Your task to perform on an android device: turn off wifi Image 0: 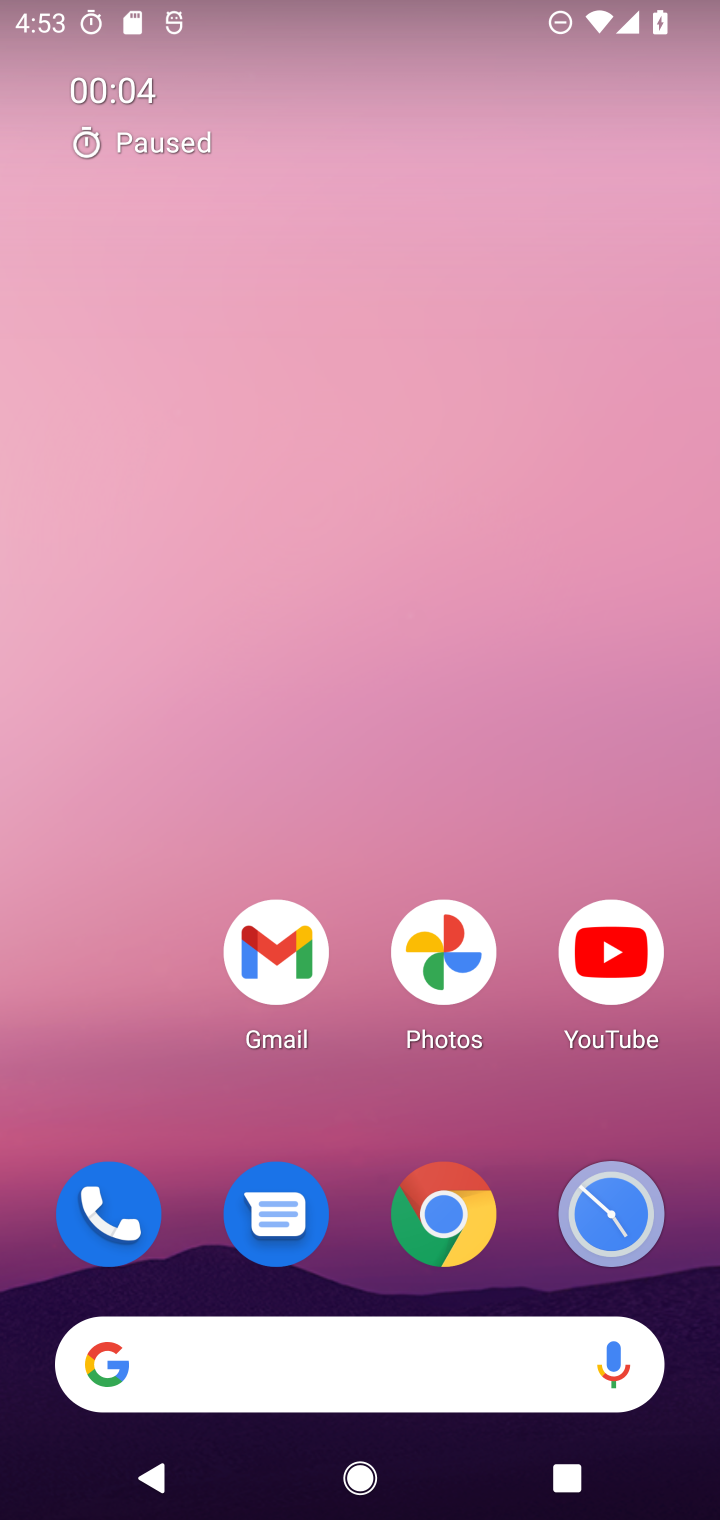
Step 0: drag from (358, 1263) to (305, 114)
Your task to perform on an android device: turn off wifi Image 1: 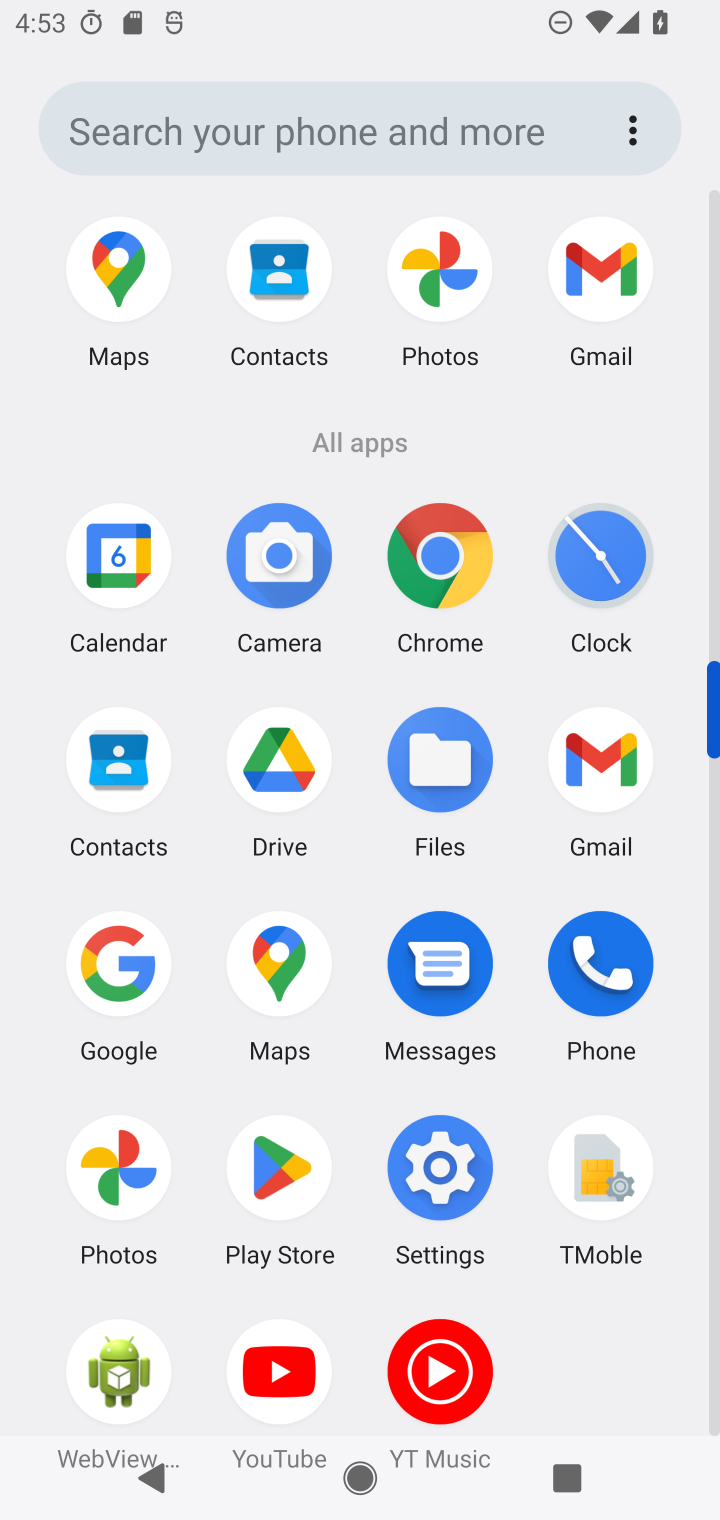
Step 1: click (417, 1193)
Your task to perform on an android device: turn off wifi Image 2: 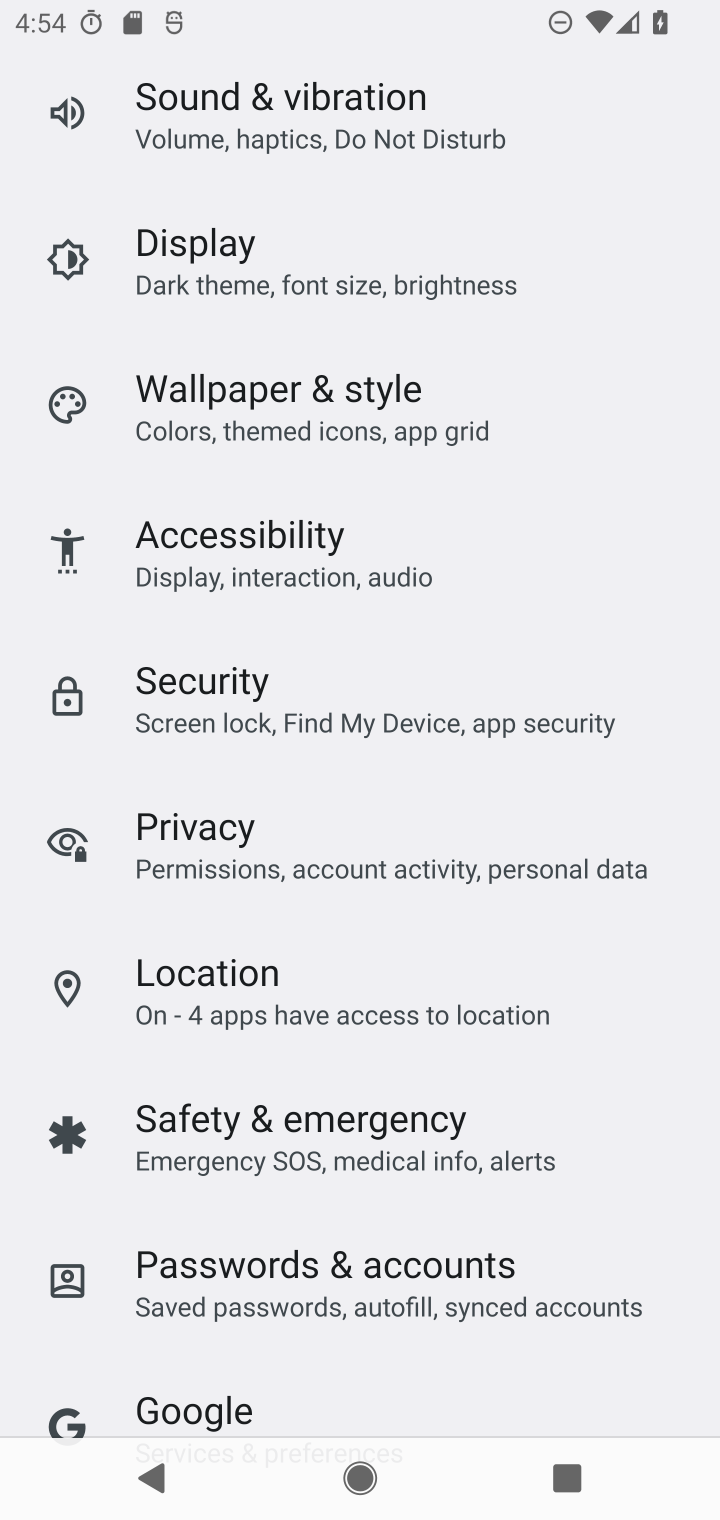
Step 2: drag from (630, 1217) to (681, 1355)
Your task to perform on an android device: turn off wifi Image 3: 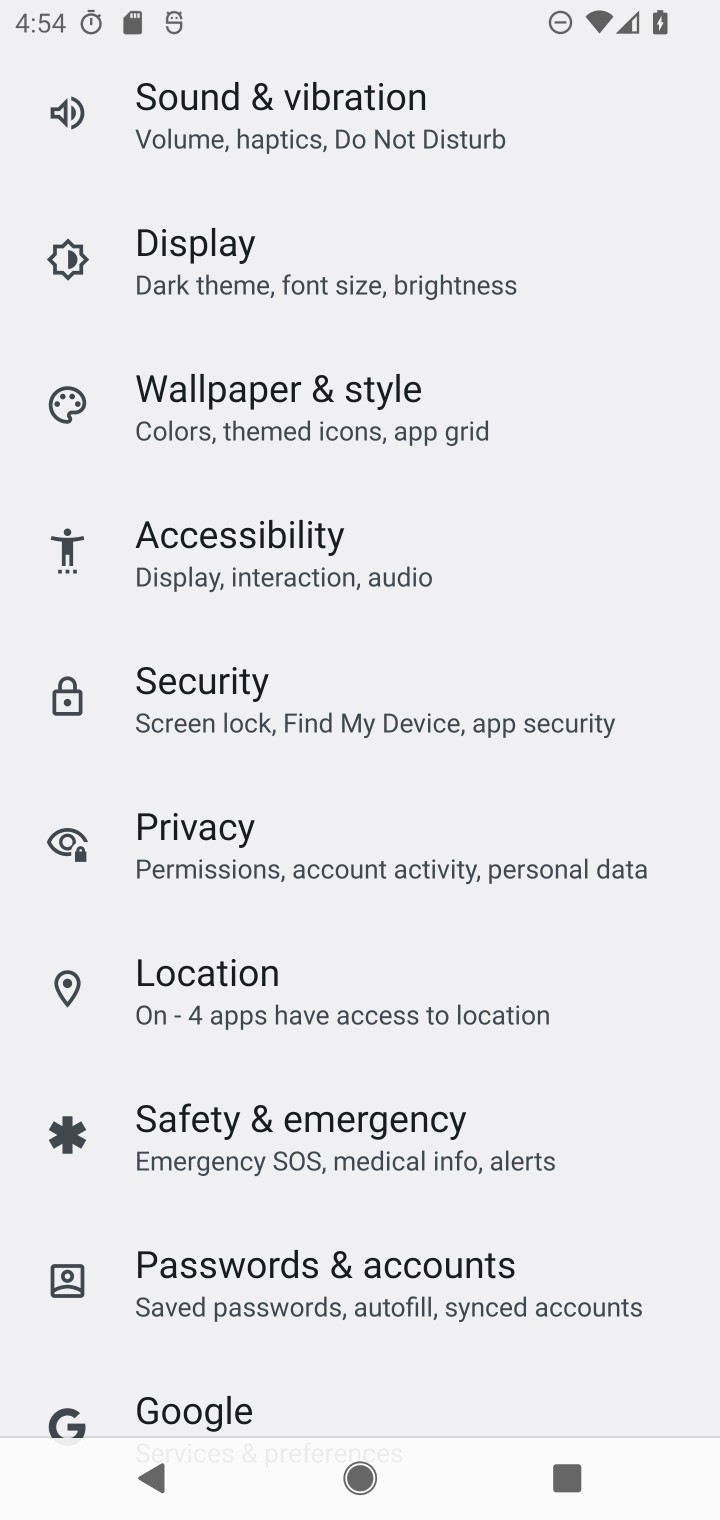
Step 3: drag from (418, 479) to (343, 1495)
Your task to perform on an android device: turn off wifi Image 4: 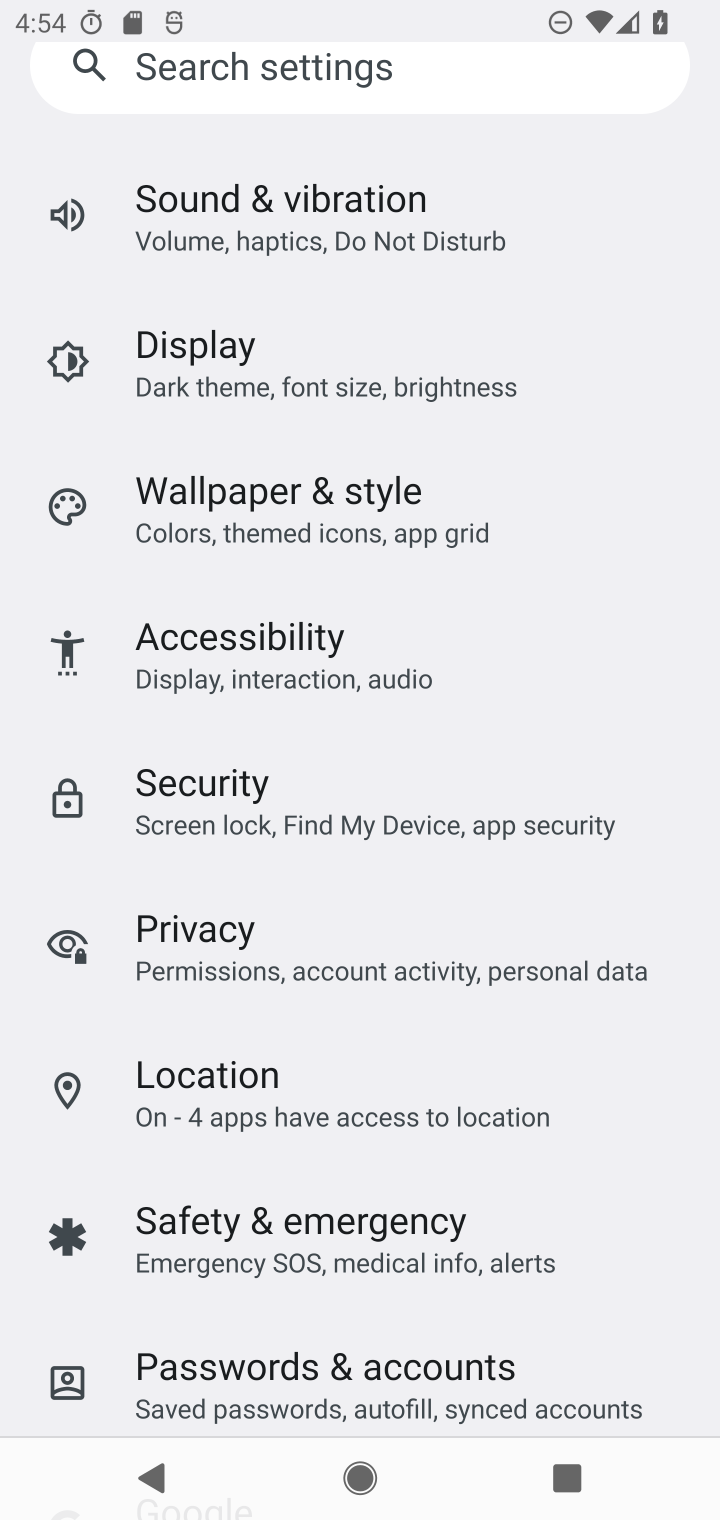
Step 4: drag from (352, 228) to (356, 1314)
Your task to perform on an android device: turn off wifi Image 5: 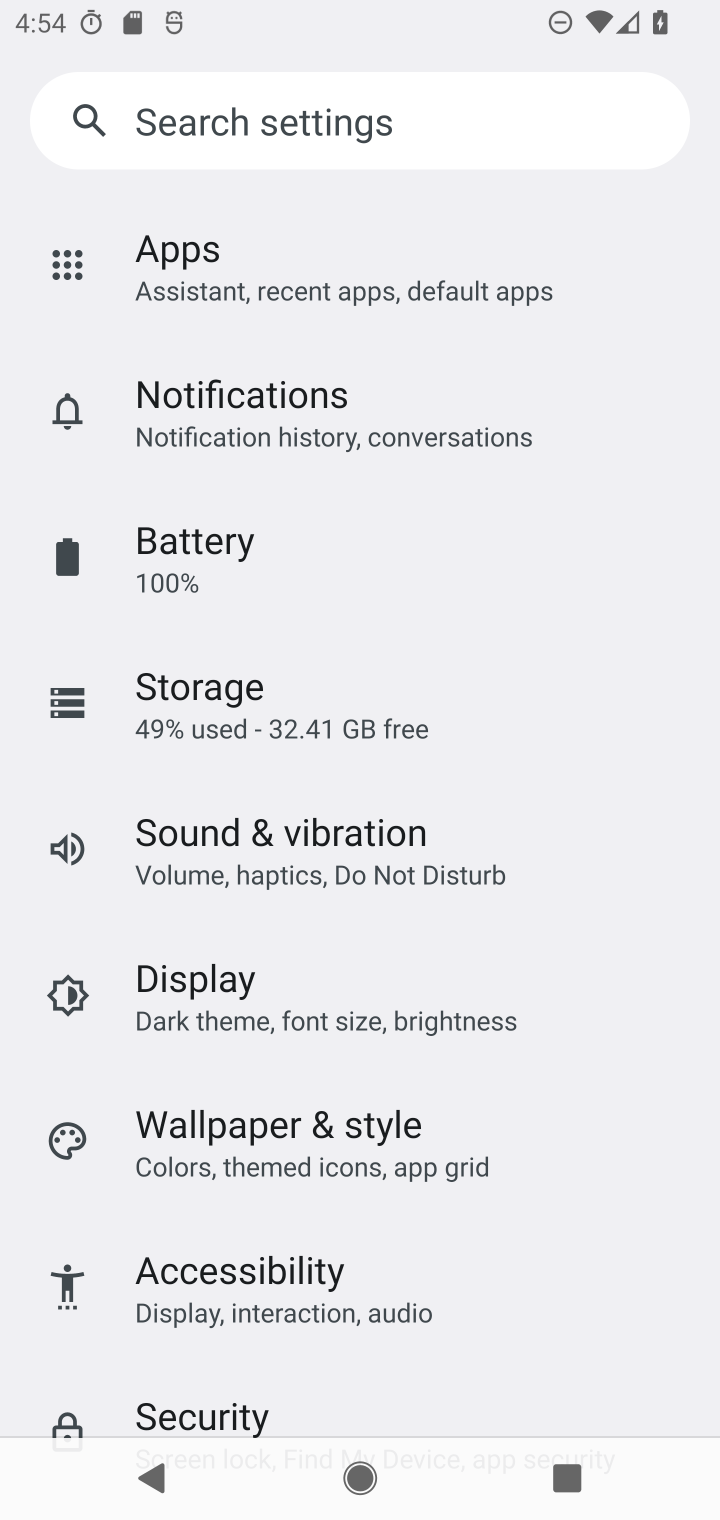
Step 5: drag from (333, 539) to (23, 877)
Your task to perform on an android device: turn off wifi Image 6: 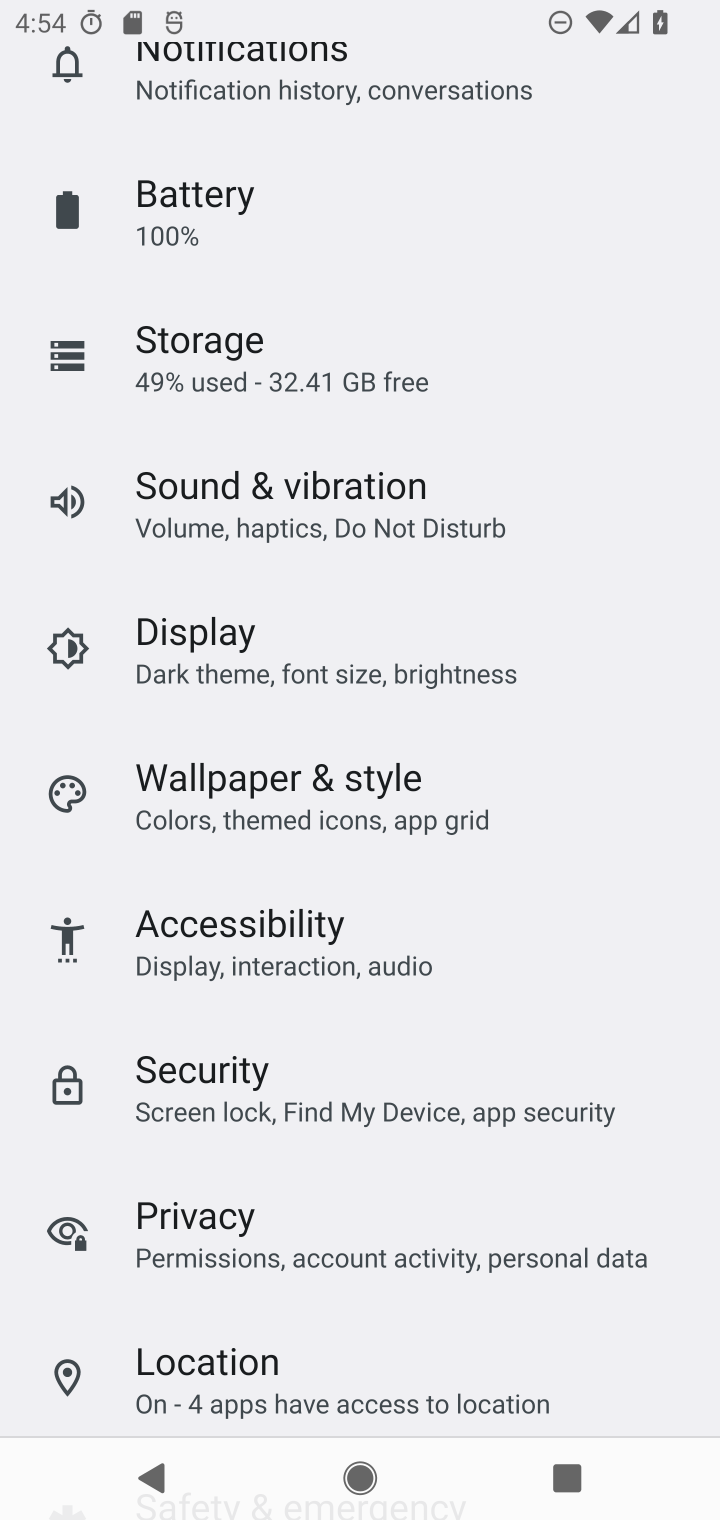
Step 6: click (357, 239)
Your task to perform on an android device: turn off wifi Image 7: 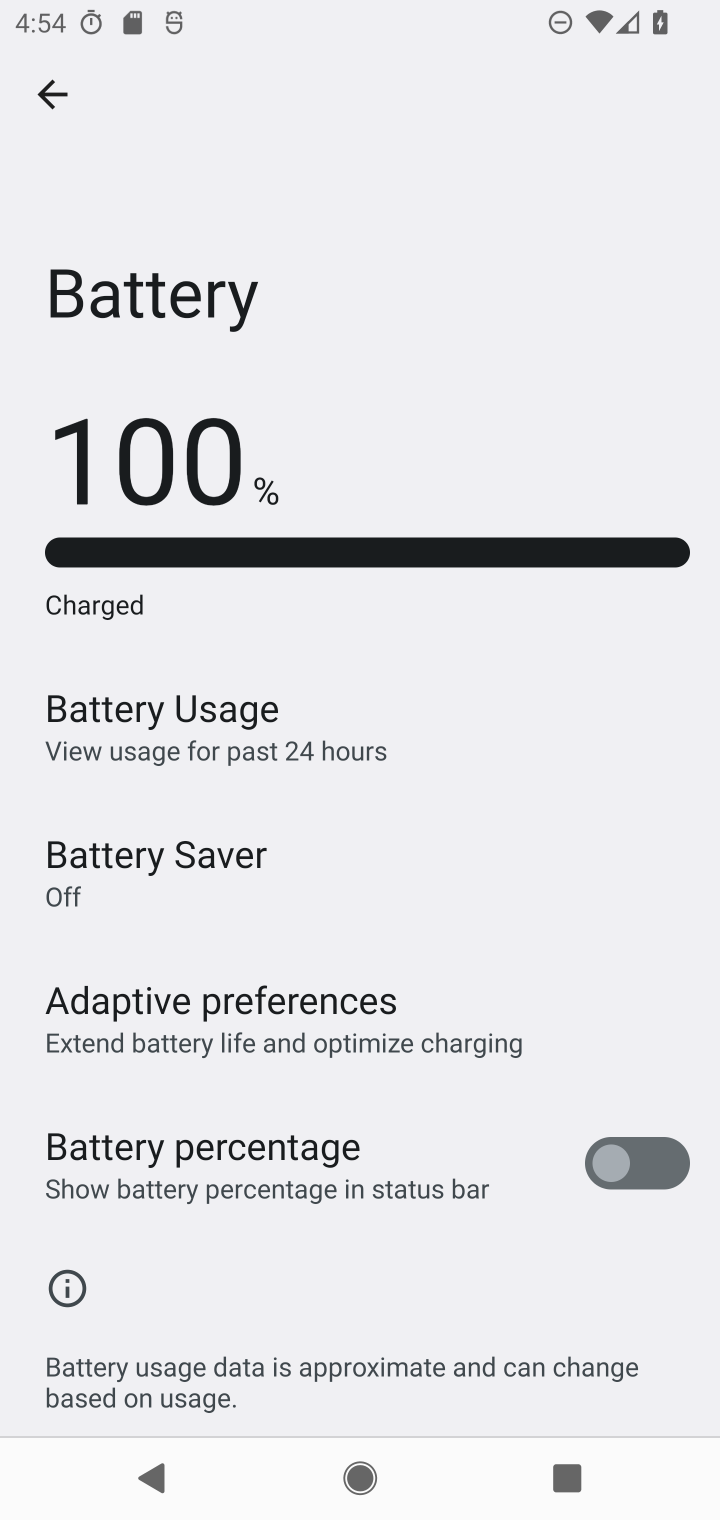
Step 7: press back button
Your task to perform on an android device: turn off wifi Image 8: 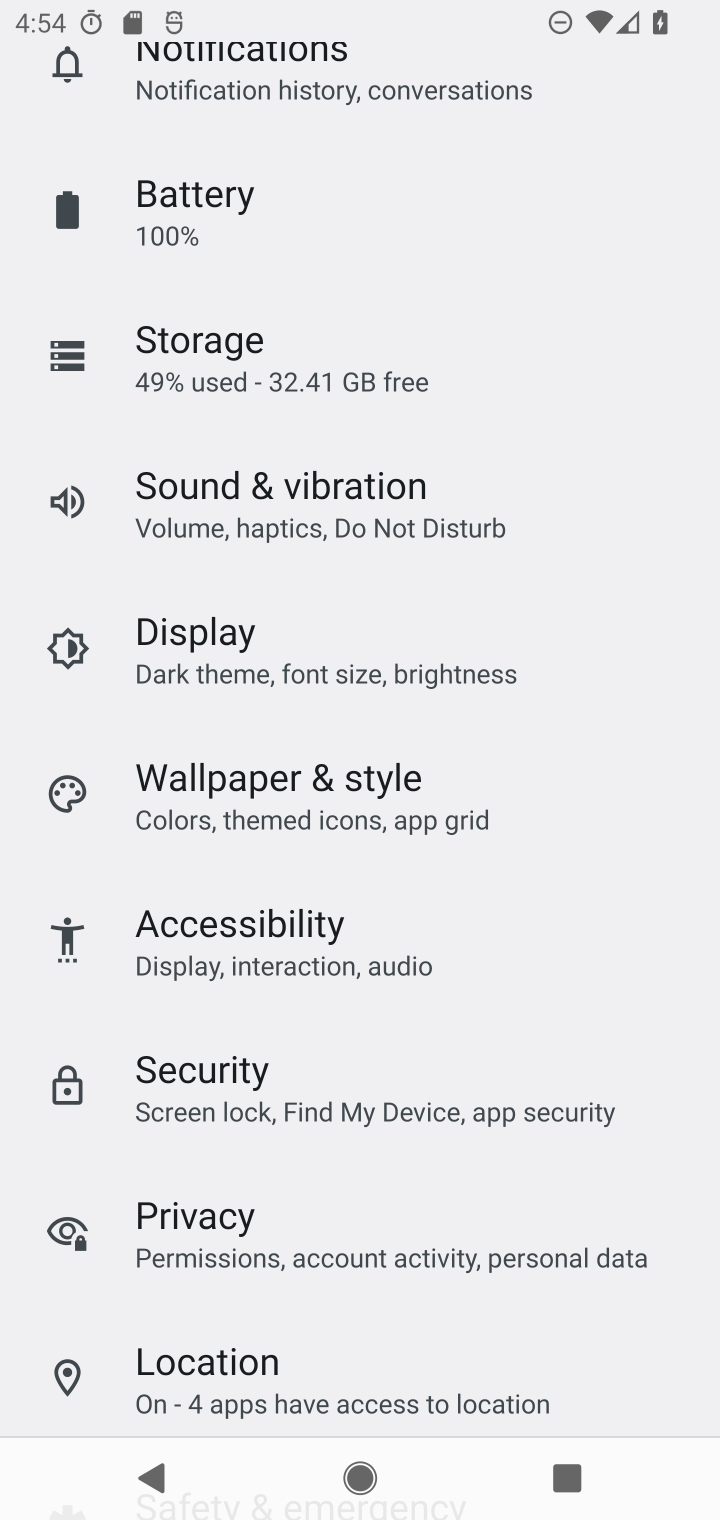
Step 8: drag from (381, 269) to (381, 973)
Your task to perform on an android device: turn off wifi Image 9: 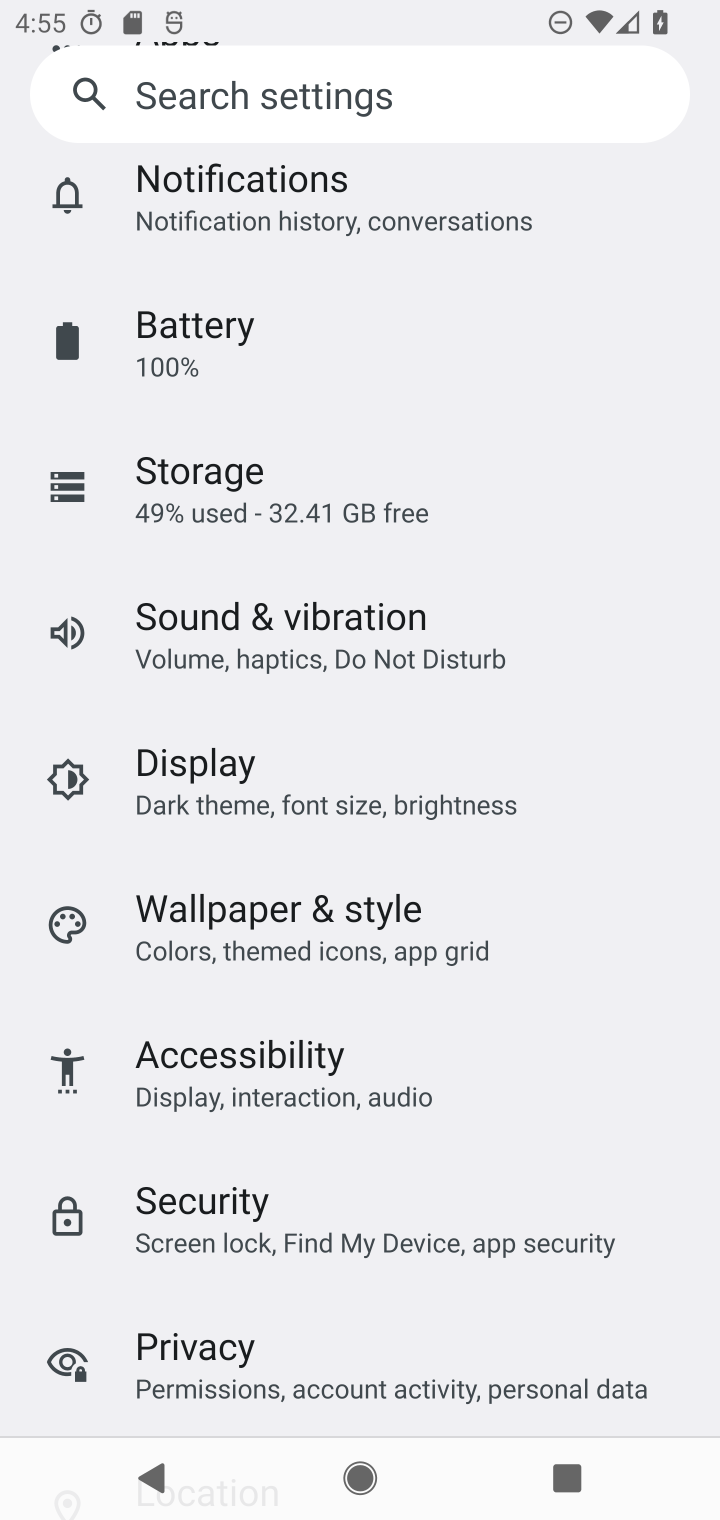
Step 9: drag from (329, 242) to (282, 1059)
Your task to perform on an android device: turn off wifi Image 10: 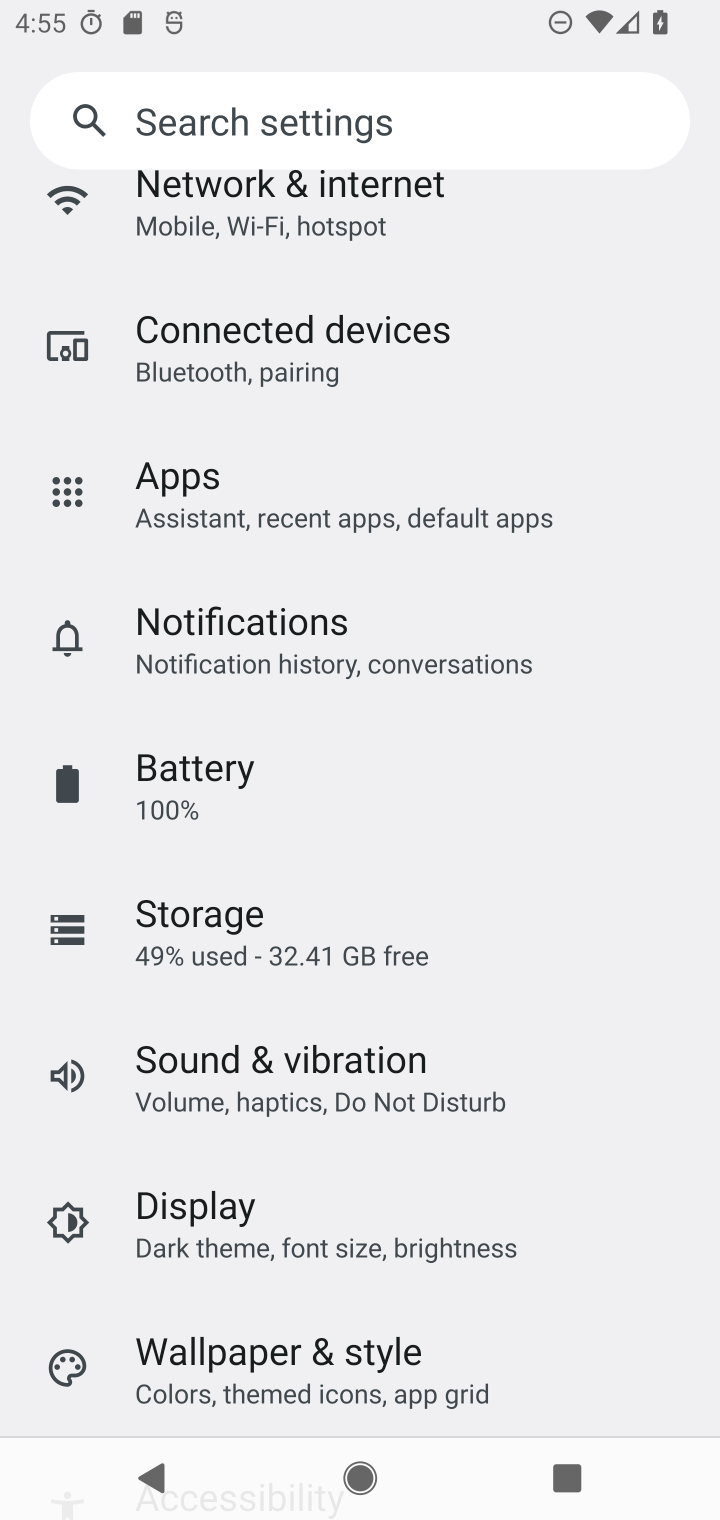
Step 10: click (277, 222)
Your task to perform on an android device: turn off wifi Image 11: 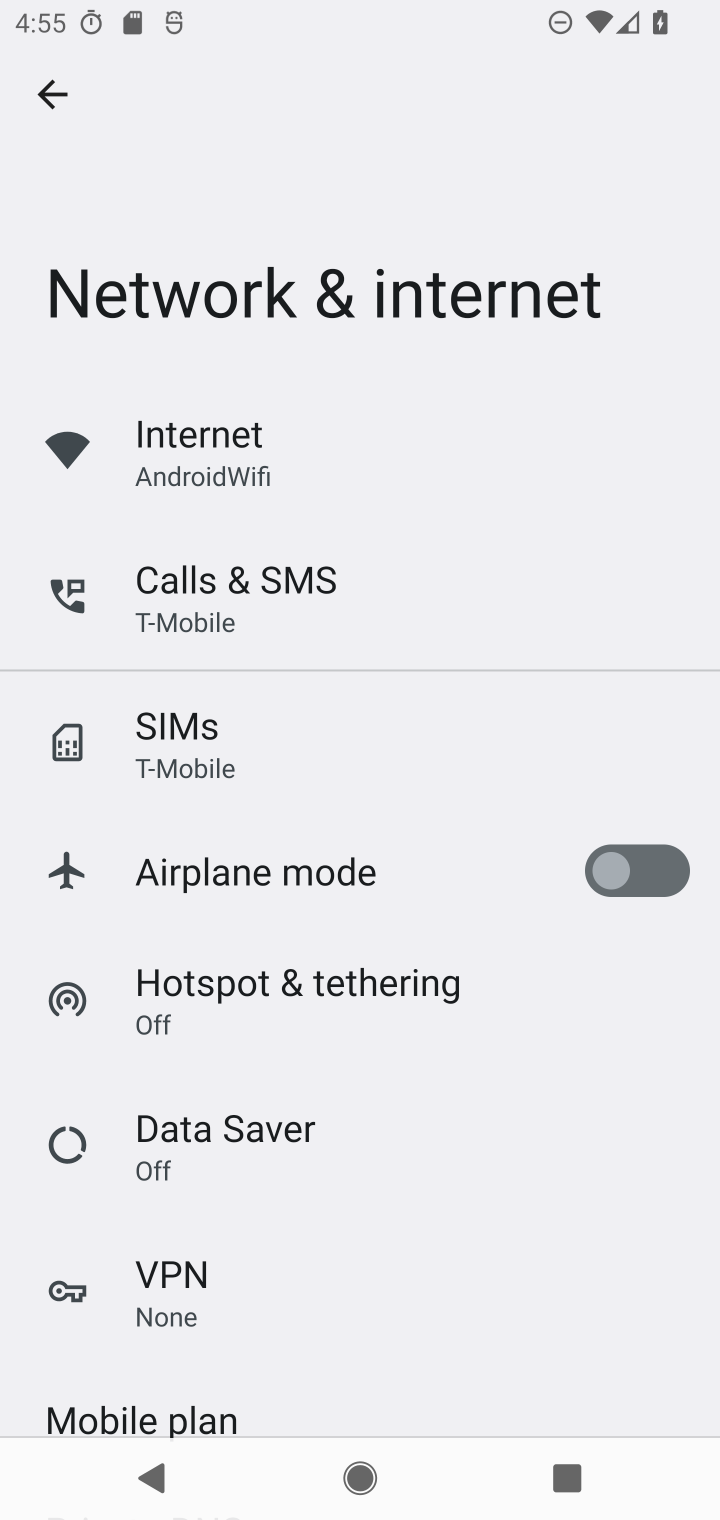
Step 11: click (223, 462)
Your task to perform on an android device: turn off wifi Image 12: 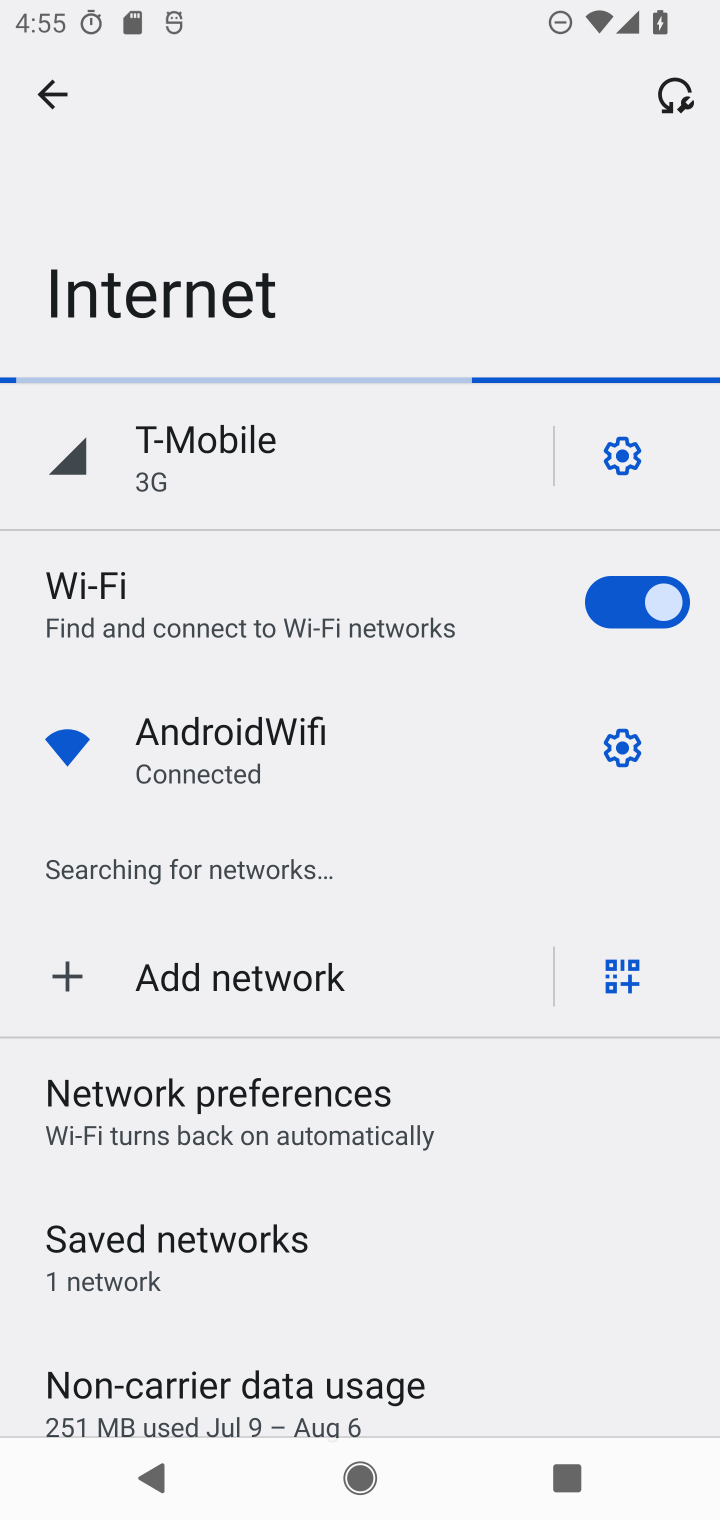
Step 12: click (615, 617)
Your task to perform on an android device: turn off wifi Image 13: 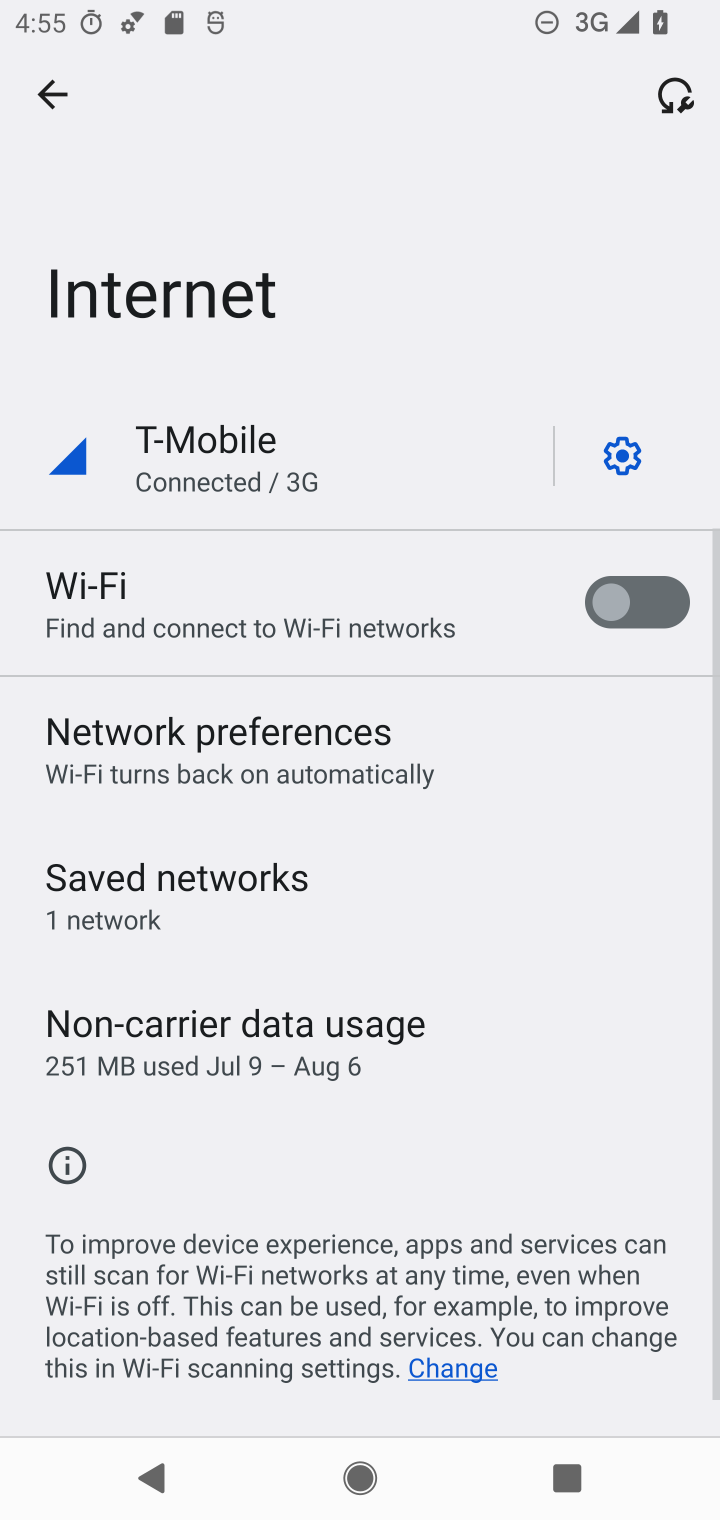
Step 13: task complete